Your task to perform on an android device: Clear the cart on costco.com. Search for usb-c to usb-a on costco.com, select the first entry, and add it to the cart. Image 0: 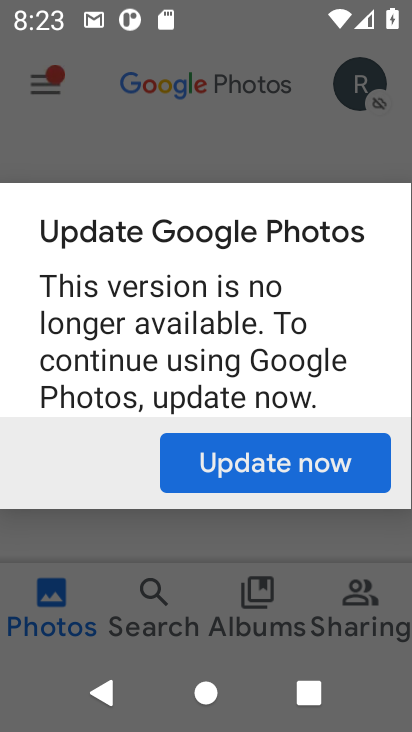
Step 0: press home button
Your task to perform on an android device: Clear the cart on costco.com. Search for usb-c to usb-a on costco.com, select the first entry, and add it to the cart. Image 1: 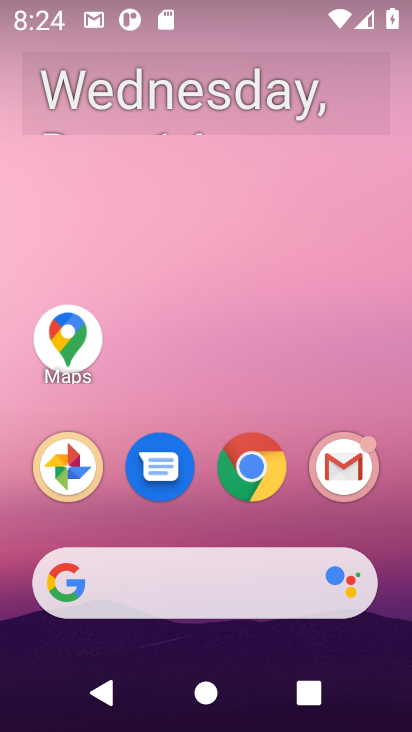
Step 1: click (245, 483)
Your task to perform on an android device: Clear the cart on costco.com. Search for usb-c to usb-a on costco.com, select the first entry, and add it to the cart. Image 2: 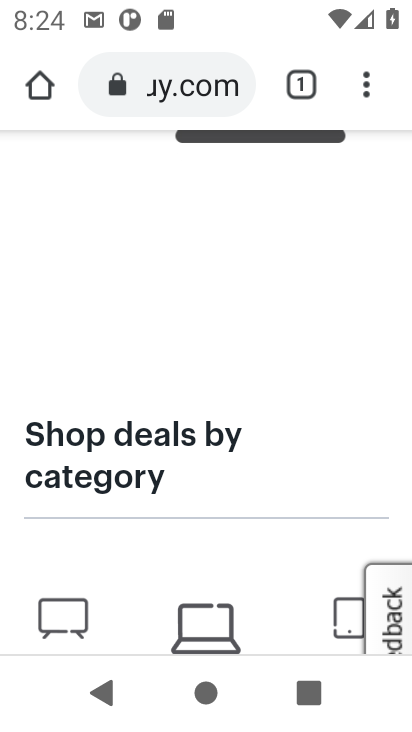
Step 2: click (157, 76)
Your task to perform on an android device: Clear the cart on costco.com. Search for usb-c to usb-a on costco.com, select the first entry, and add it to the cart. Image 3: 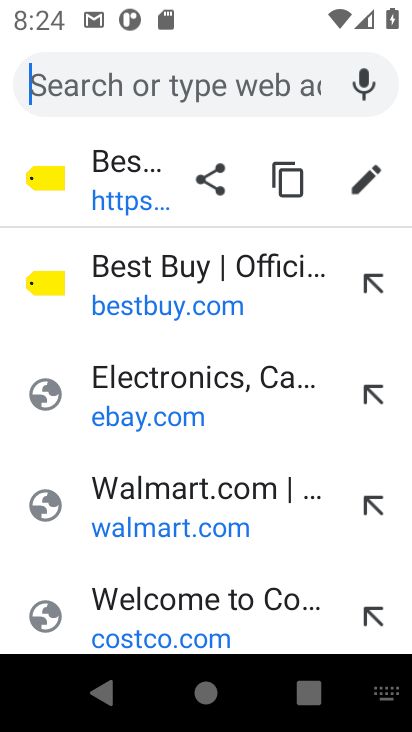
Step 3: click (205, 592)
Your task to perform on an android device: Clear the cart on costco.com. Search for usb-c to usb-a on costco.com, select the first entry, and add it to the cart. Image 4: 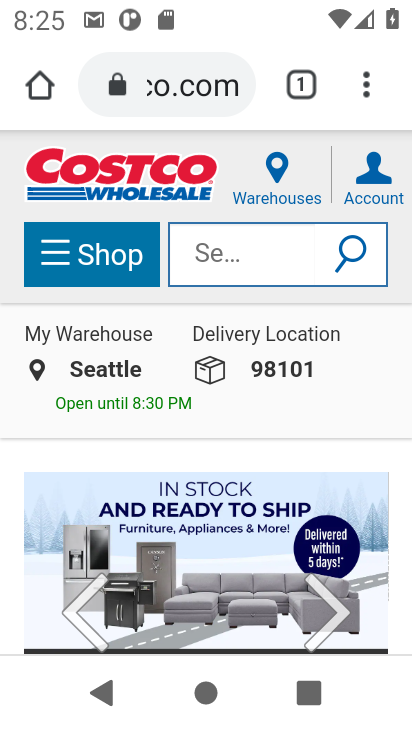
Step 4: click (211, 254)
Your task to perform on an android device: Clear the cart on costco.com. Search for usb-c to usb-a on costco.com, select the first entry, and add it to the cart. Image 5: 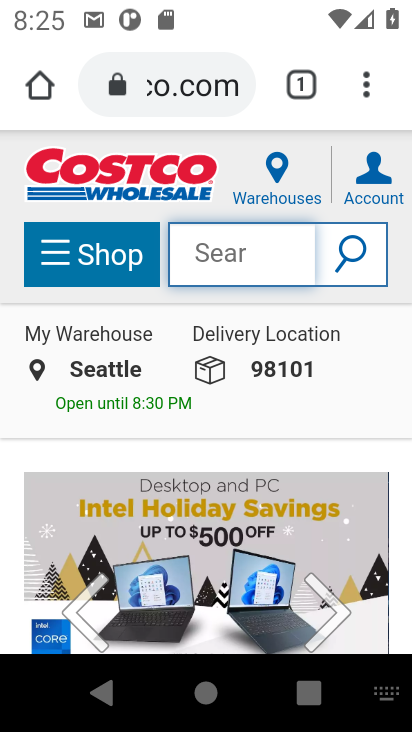
Step 5: type "usb-c to udb-a"
Your task to perform on an android device: Clear the cart on costco.com. Search for usb-c to usb-a on costco.com, select the first entry, and add it to the cart. Image 6: 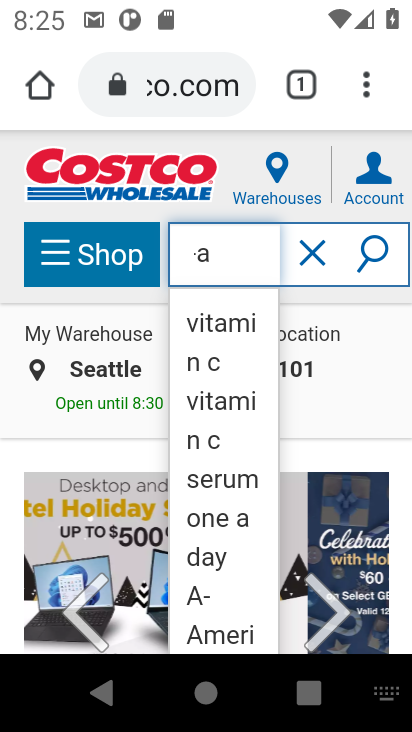
Step 6: click (387, 262)
Your task to perform on an android device: Clear the cart on costco.com. Search for usb-c to usb-a on costco.com, select the first entry, and add it to the cart. Image 7: 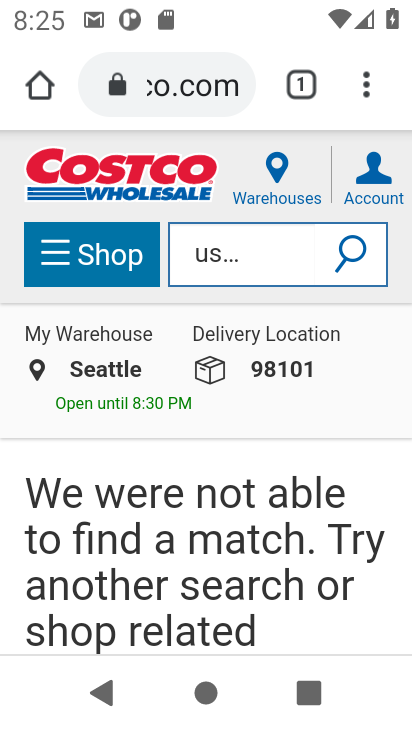
Step 7: task complete